Your task to perform on an android device: Open the web browser Image 0: 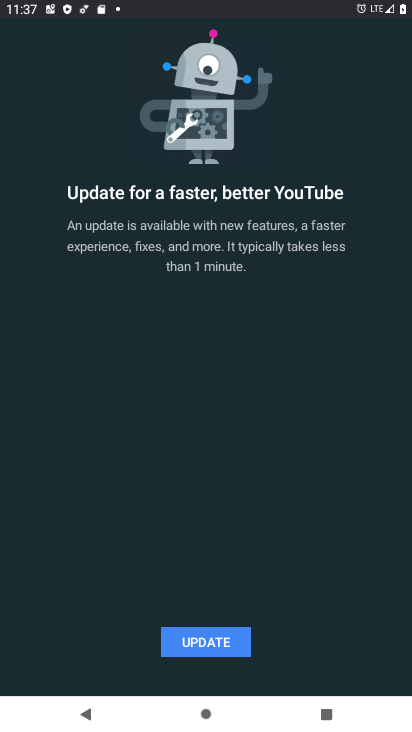
Step 0: press back button
Your task to perform on an android device: Open the web browser Image 1: 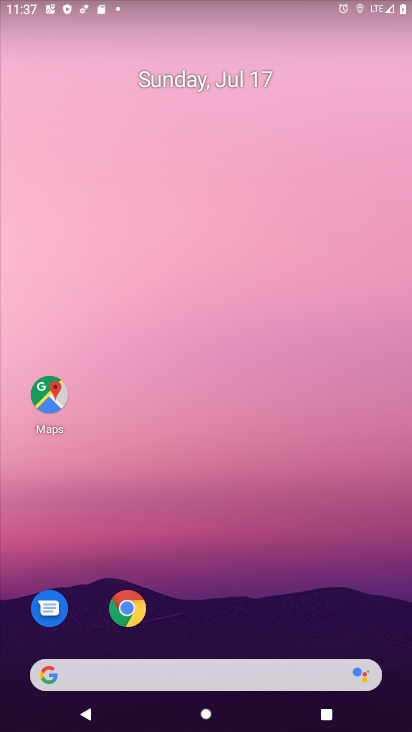
Step 1: drag from (167, 633) to (345, 1)
Your task to perform on an android device: Open the web browser Image 2: 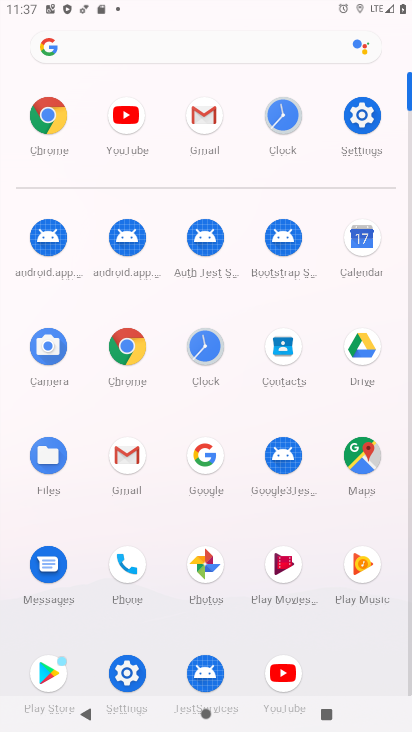
Step 2: click (209, 456)
Your task to perform on an android device: Open the web browser Image 3: 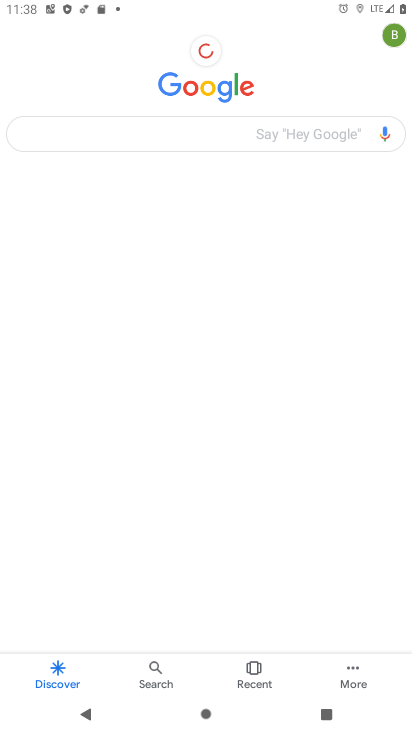
Step 3: click (192, 133)
Your task to perform on an android device: Open the web browser Image 4: 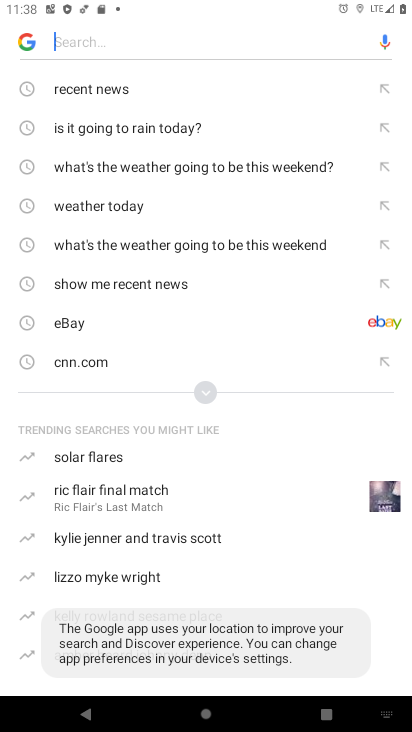
Step 4: task complete